Your task to perform on an android device: Open internet settings Image 0: 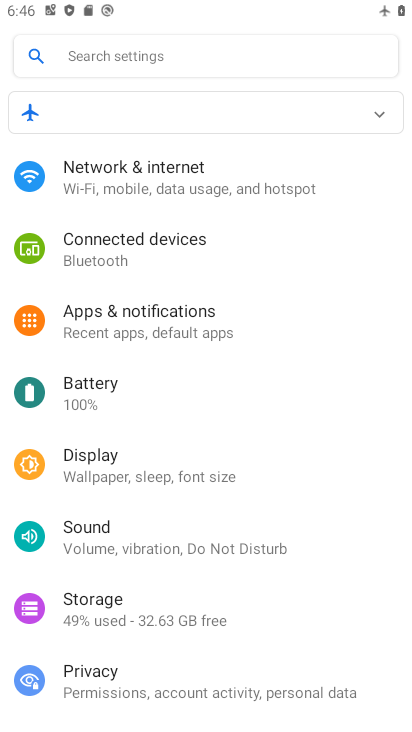
Step 0: press home button
Your task to perform on an android device: Open internet settings Image 1: 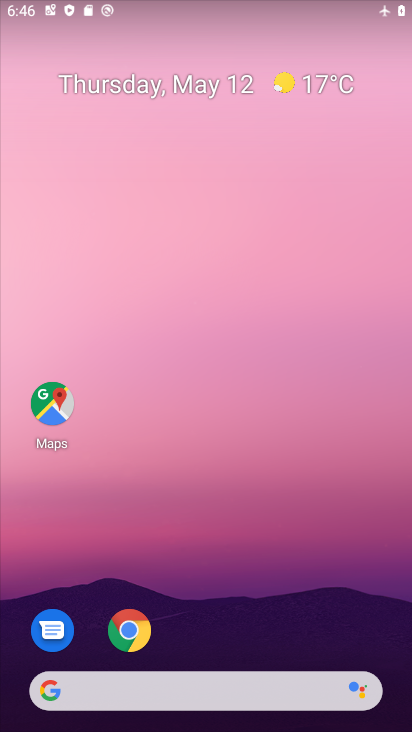
Step 1: drag from (289, 614) to (184, 28)
Your task to perform on an android device: Open internet settings Image 2: 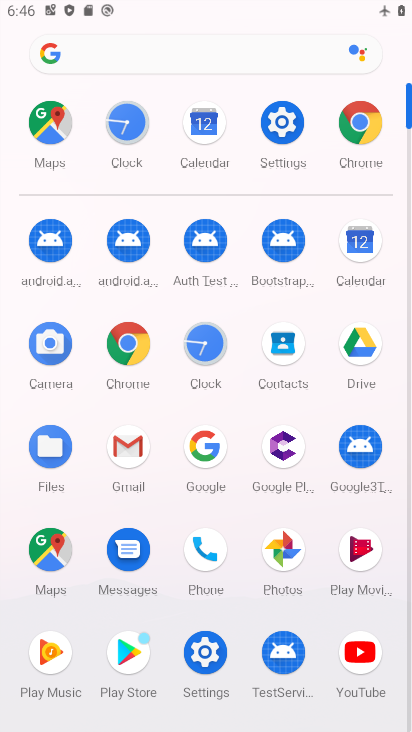
Step 2: click (284, 131)
Your task to perform on an android device: Open internet settings Image 3: 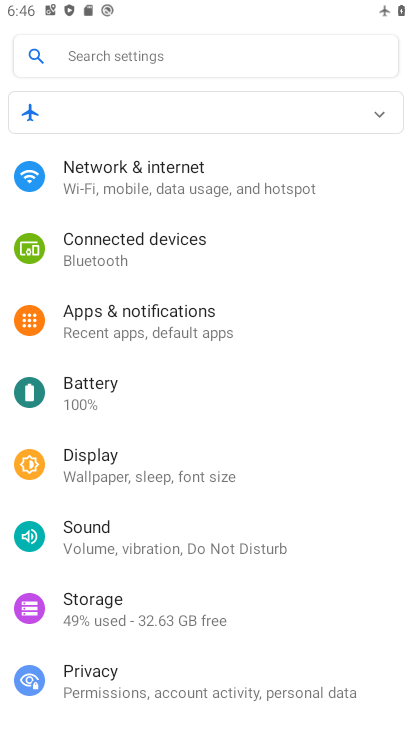
Step 3: click (213, 200)
Your task to perform on an android device: Open internet settings Image 4: 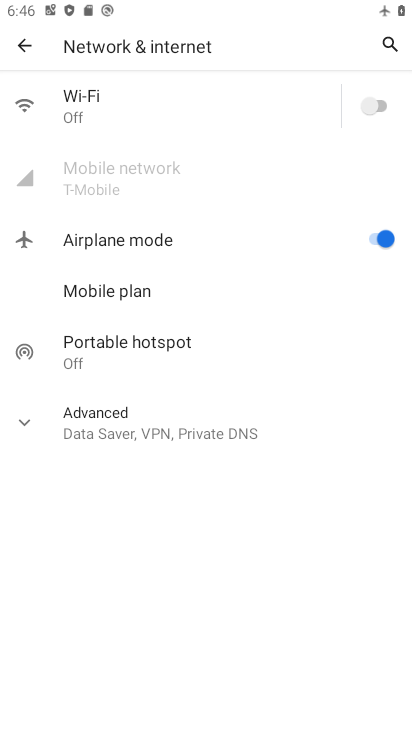
Step 4: task complete